Your task to perform on an android device: Open Android settings Image 0: 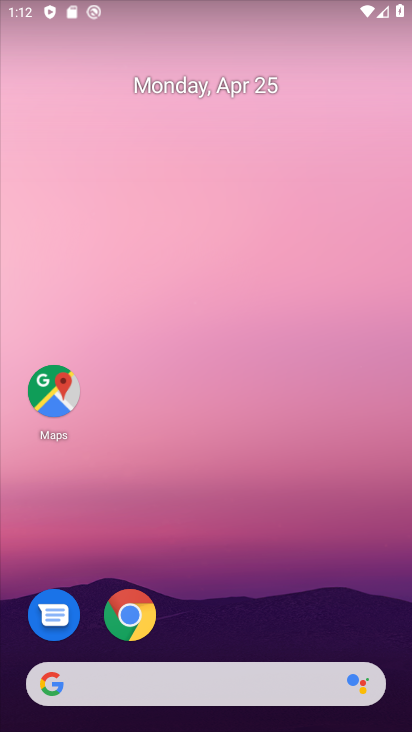
Step 0: drag from (259, 598) to (249, 8)
Your task to perform on an android device: Open Android settings Image 1: 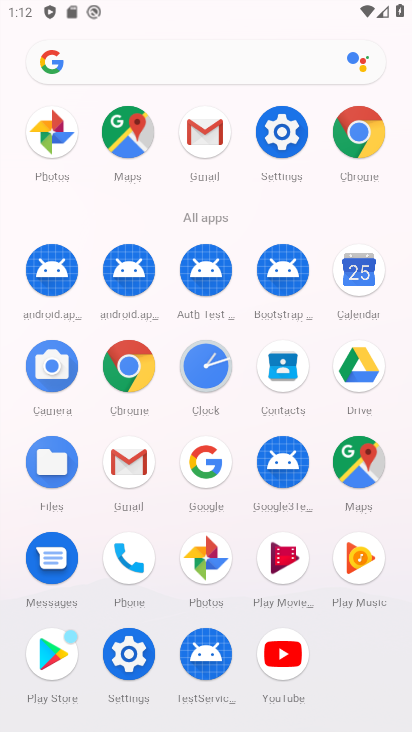
Step 1: click (281, 132)
Your task to perform on an android device: Open Android settings Image 2: 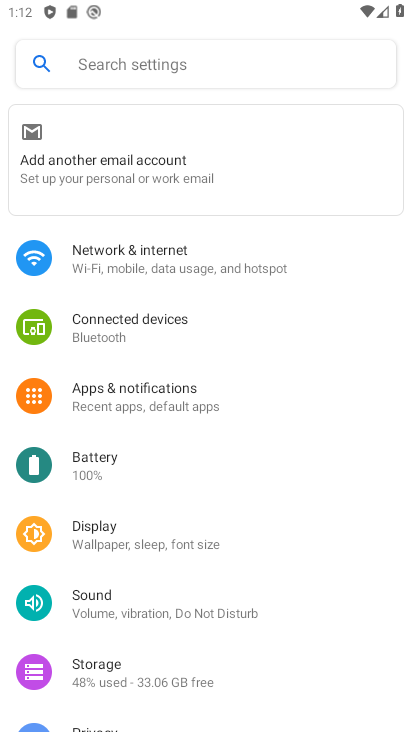
Step 2: task complete